Your task to perform on an android device: Is it going to rain tomorrow? Image 0: 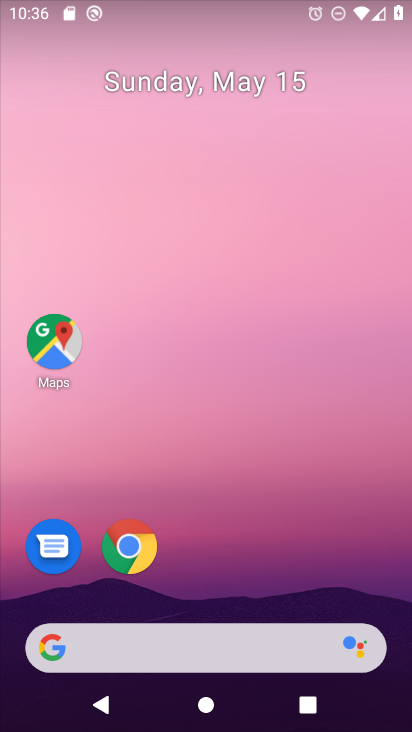
Step 0: click (131, 546)
Your task to perform on an android device: Is it going to rain tomorrow? Image 1: 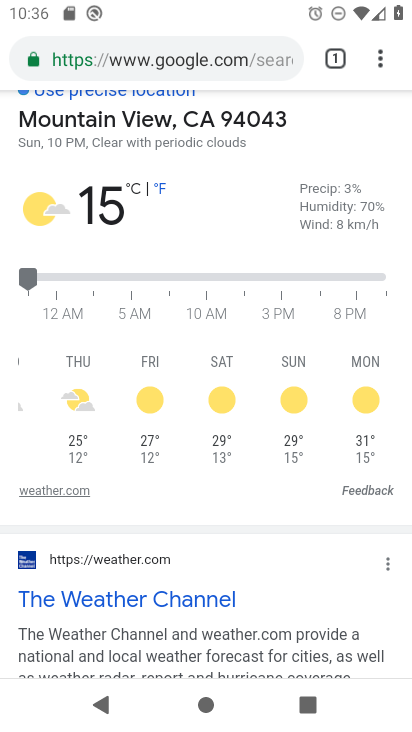
Step 1: drag from (118, 387) to (394, 385)
Your task to perform on an android device: Is it going to rain tomorrow? Image 2: 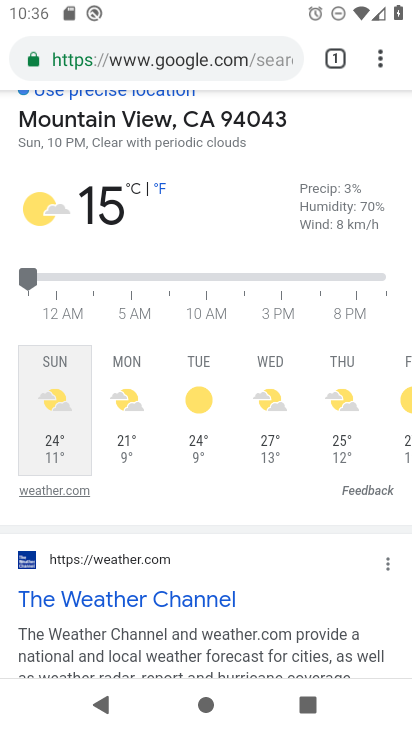
Step 2: click (146, 401)
Your task to perform on an android device: Is it going to rain tomorrow? Image 3: 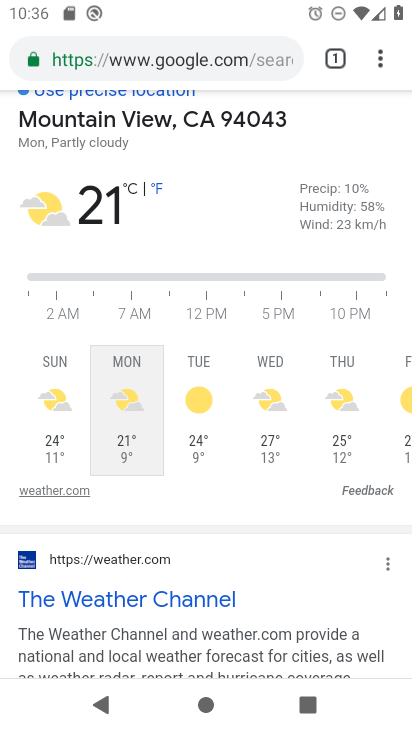
Step 3: task complete